Your task to perform on an android device: create a new album in the google photos Image 0: 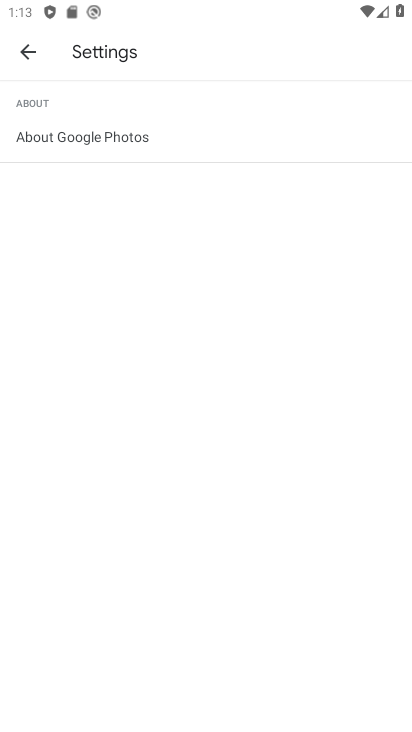
Step 0: press home button
Your task to perform on an android device: create a new album in the google photos Image 1: 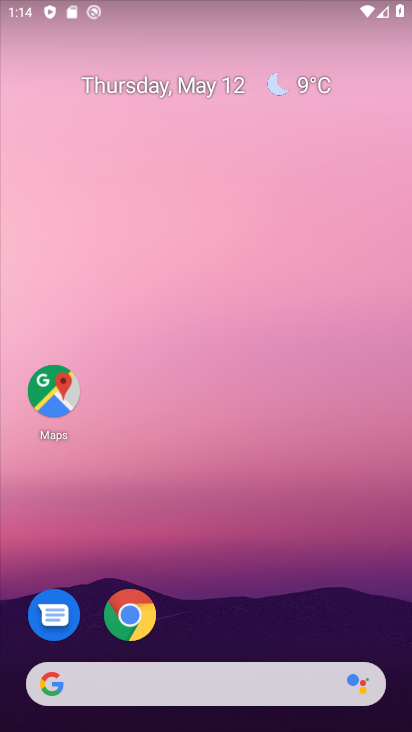
Step 1: drag from (189, 687) to (56, 0)
Your task to perform on an android device: create a new album in the google photos Image 2: 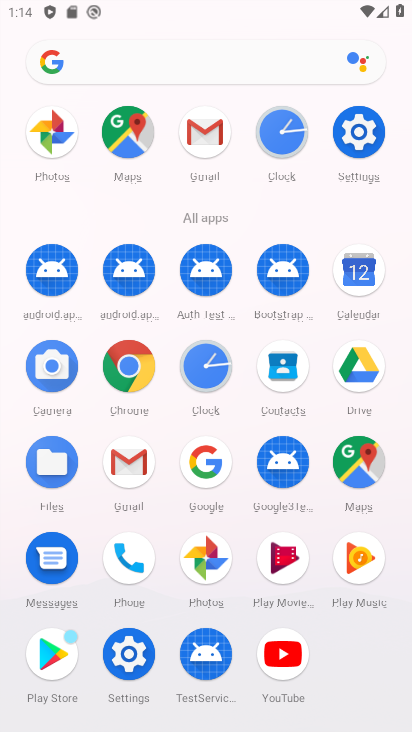
Step 2: click (191, 572)
Your task to perform on an android device: create a new album in the google photos Image 3: 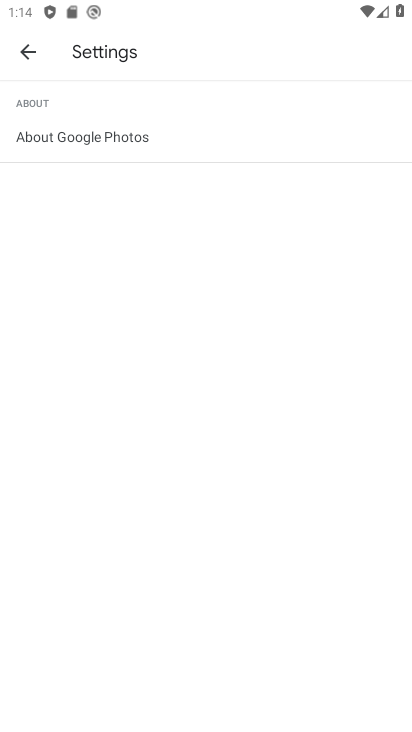
Step 3: click (31, 60)
Your task to perform on an android device: create a new album in the google photos Image 4: 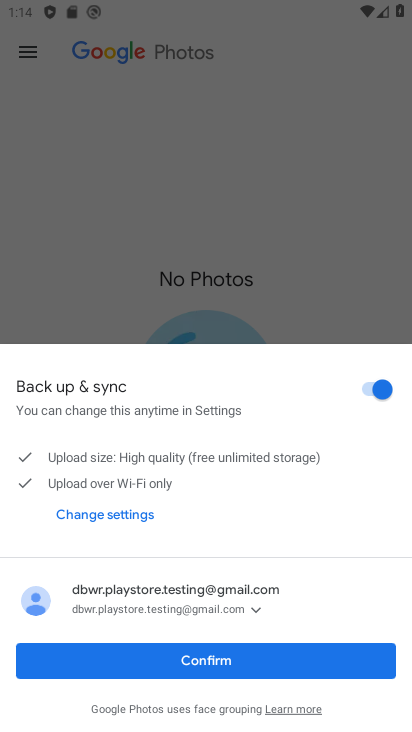
Step 4: click (248, 660)
Your task to perform on an android device: create a new album in the google photos Image 5: 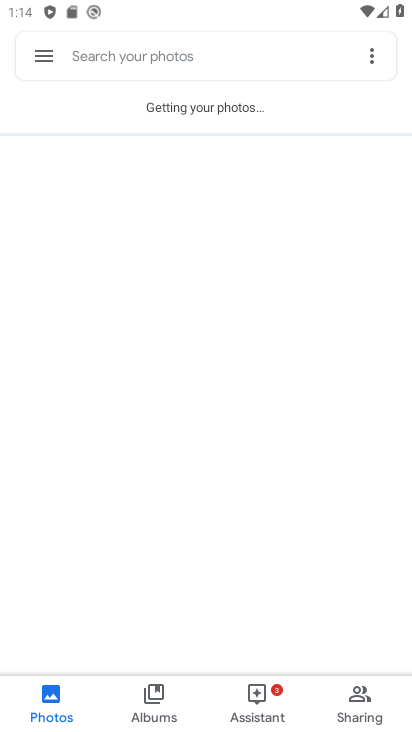
Step 5: click (265, 699)
Your task to perform on an android device: create a new album in the google photos Image 6: 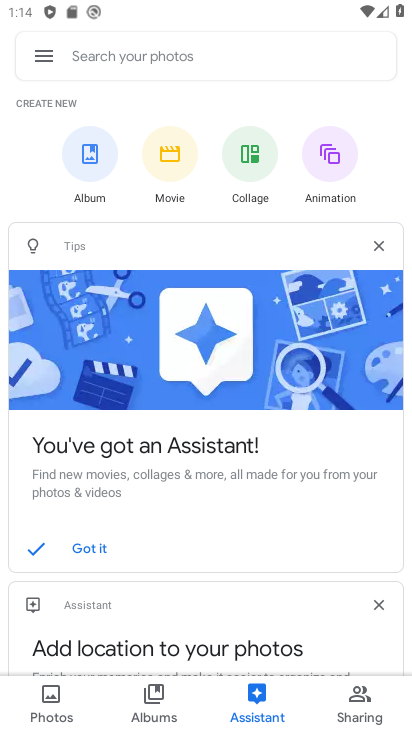
Step 6: click (84, 180)
Your task to perform on an android device: create a new album in the google photos Image 7: 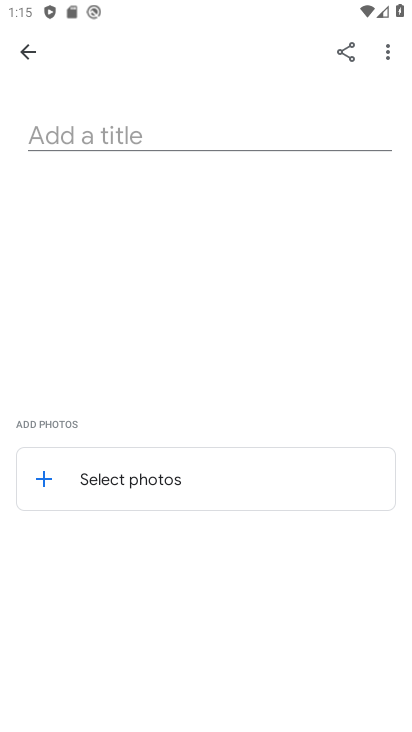
Step 7: click (116, 129)
Your task to perform on an android device: create a new album in the google photos Image 8: 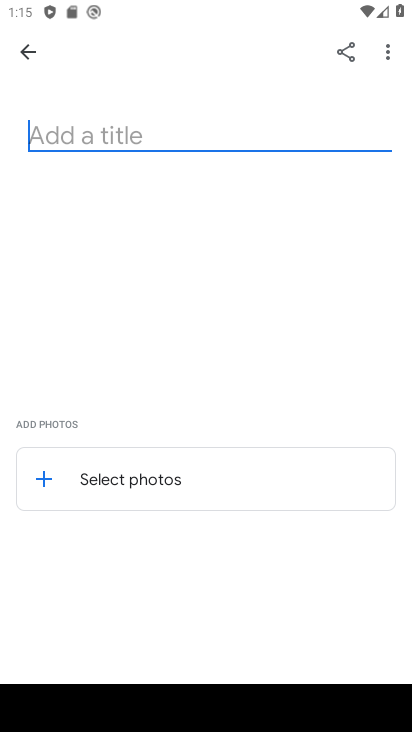
Step 8: type "vngv"
Your task to perform on an android device: create a new album in the google photos Image 9: 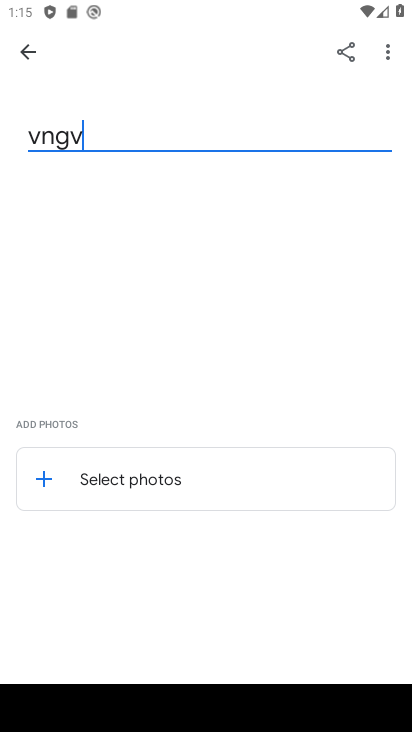
Step 9: click (173, 467)
Your task to perform on an android device: create a new album in the google photos Image 10: 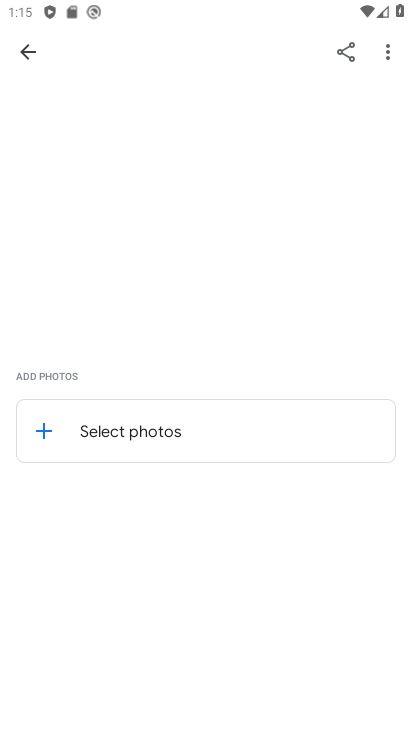
Step 10: click (179, 446)
Your task to perform on an android device: create a new album in the google photos Image 11: 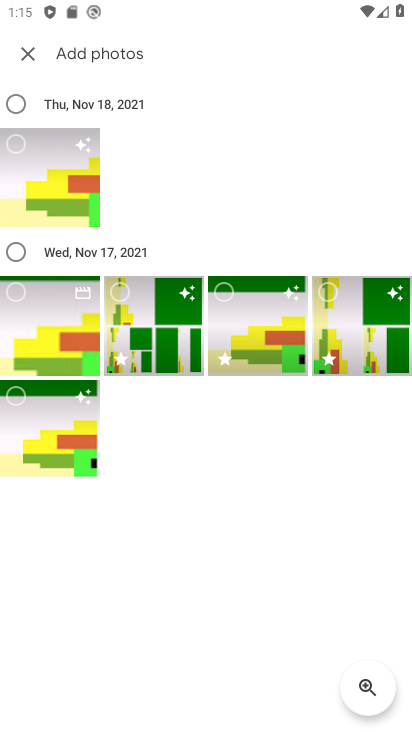
Step 11: click (14, 111)
Your task to perform on an android device: create a new album in the google photos Image 12: 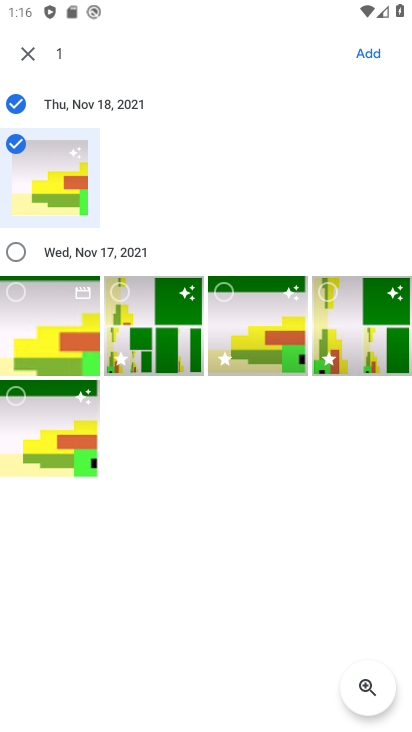
Step 12: click (380, 48)
Your task to perform on an android device: create a new album in the google photos Image 13: 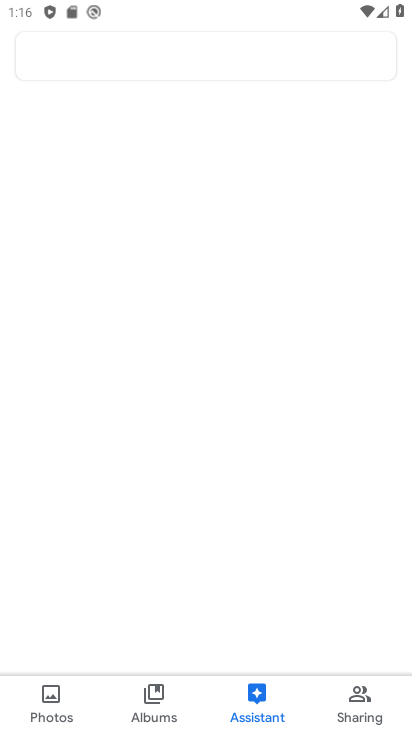
Step 13: task complete